Your task to perform on an android device: Open ESPN.com Image 0: 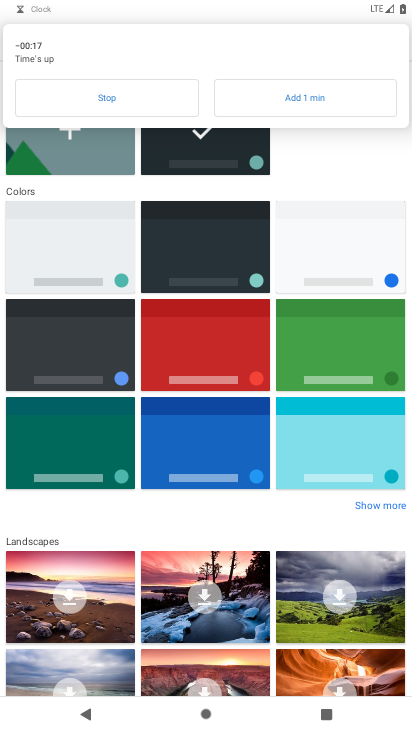
Step 0: press home button
Your task to perform on an android device: Open ESPN.com Image 1: 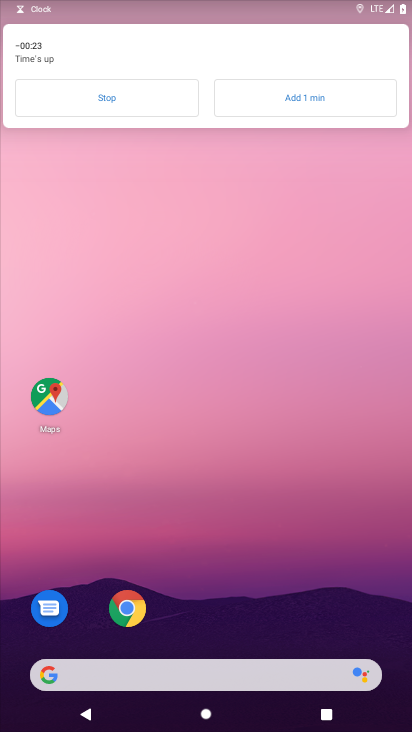
Step 1: click (145, 613)
Your task to perform on an android device: Open ESPN.com Image 2: 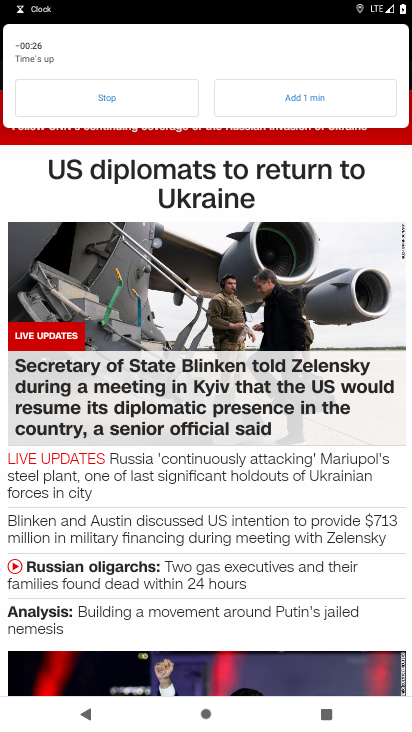
Step 2: click (96, 102)
Your task to perform on an android device: Open ESPN.com Image 3: 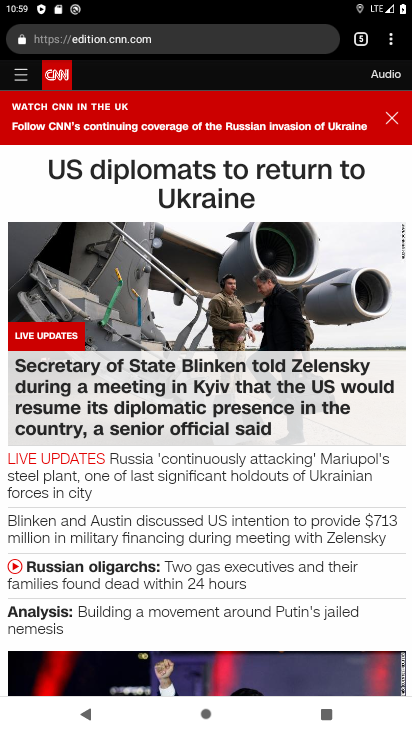
Step 3: click (369, 34)
Your task to perform on an android device: Open ESPN.com Image 4: 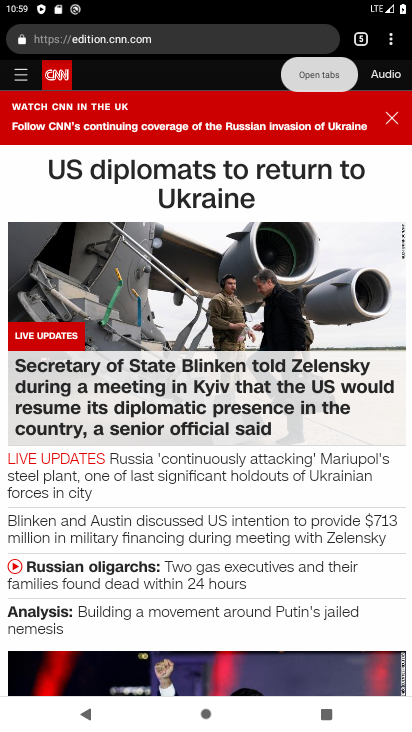
Step 4: click (361, 41)
Your task to perform on an android device: Open ESPN.com Image 5: 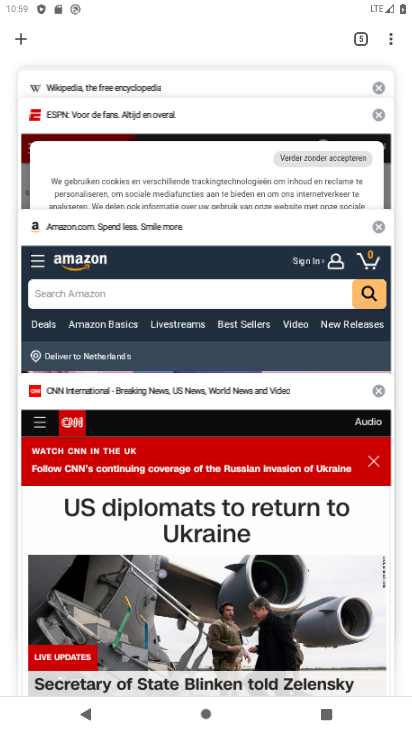
Step 5: click (19, 44)
Your task to perform on an android device: Open ESPN.com Image 6: 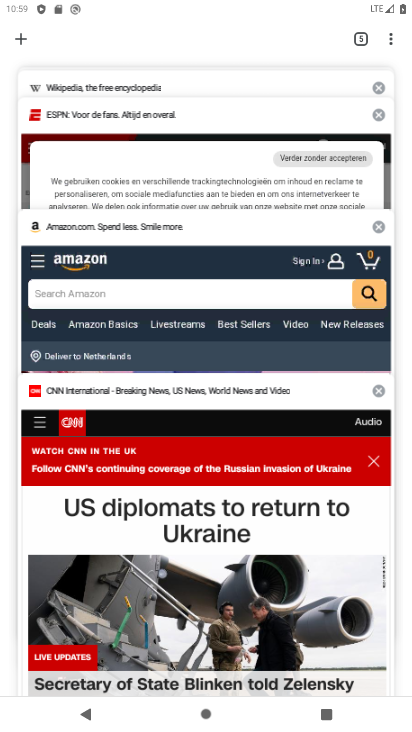
Step 6: click (30, 201)
Your task to perform on an android device: Open ESPN.com Image 7: 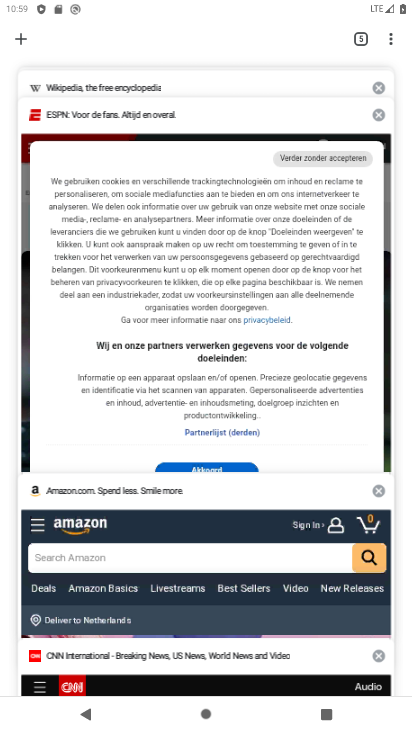
Step 7: click (97, 158)
Your task to perform on an android device: Open ESPN.com Image 8: 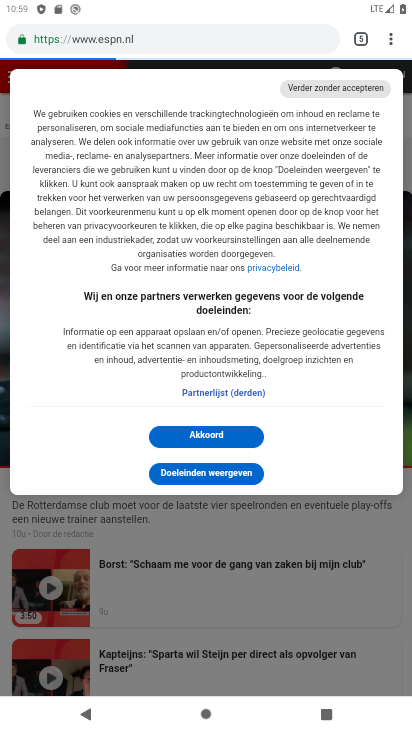
Step 8: click (200, 422)
Your task to perform on an android device: Open ESPN.com Image 9: 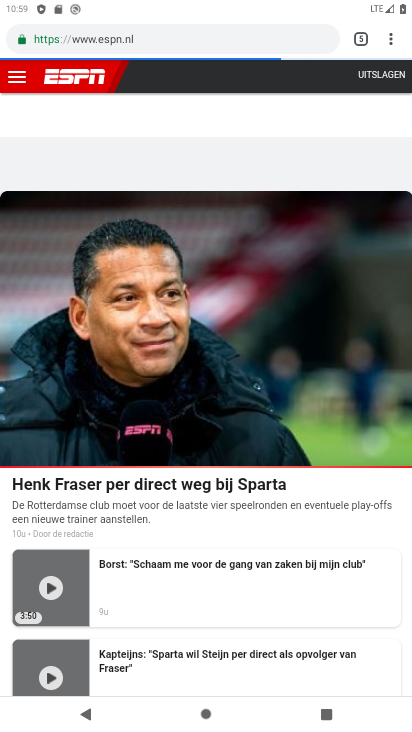
Step 9: task complete